Your task to perform on an android device: Search for Mexican restaurants on Maps Image 0: 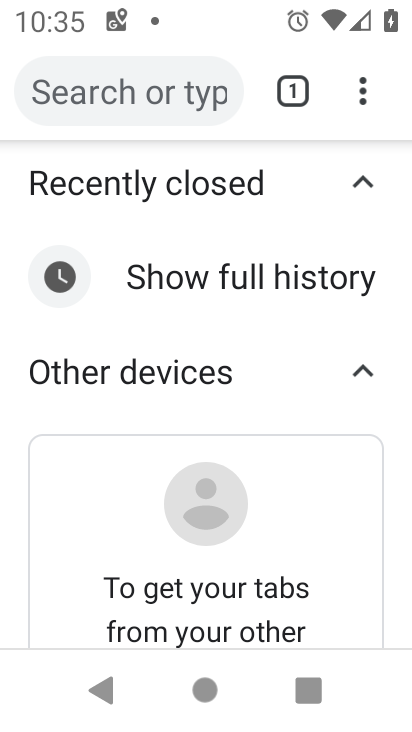
Step 0: drag from (264, 554) to (303, 99)
Your task to perform on an android device: Search for Mexican restaurants on Maps Image 1: 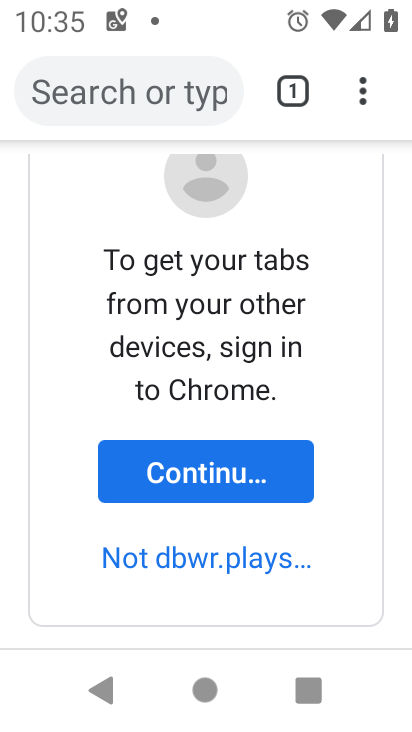
Step 1: drag from (271, 151) to (247, 679)
Your task to perform on an android device: Search for Mexican restaurants on Maps Image 2: 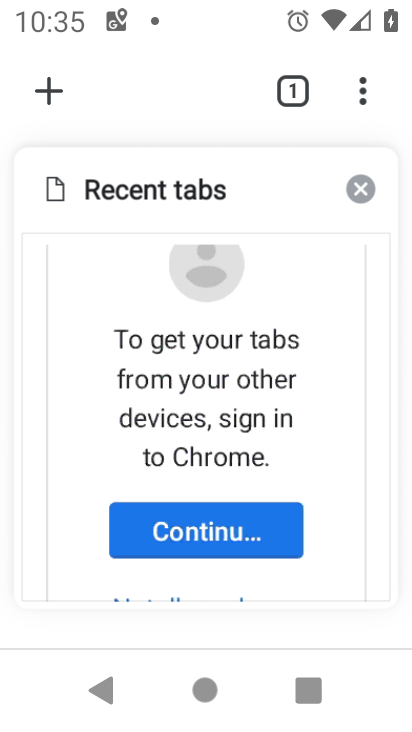
Step 2: click (213, 266)
Your task to perform on an android device: Search for Mexican restaurants on Maps Image 3: 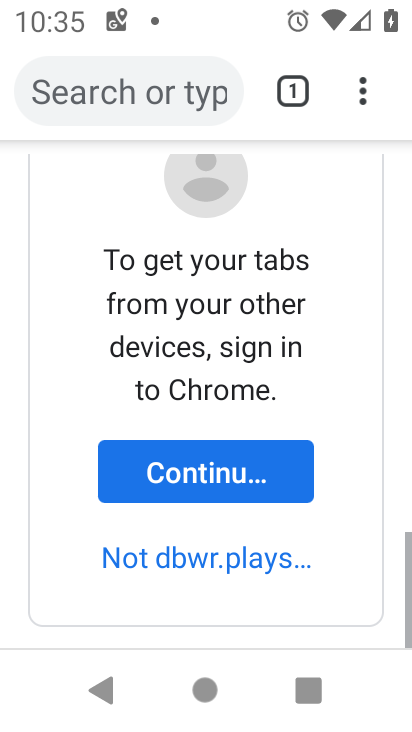
Step 3: click (110, 94)
Your task to perform on an android device: Search for Mexican restaurants on Maps Image 4: 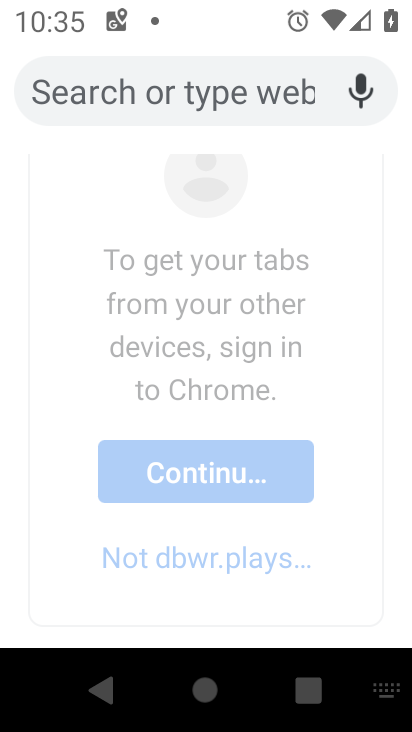
Step 4: press home button
Your task to perform on an android device: Search for Mexican restaurants on Maps Image 5: 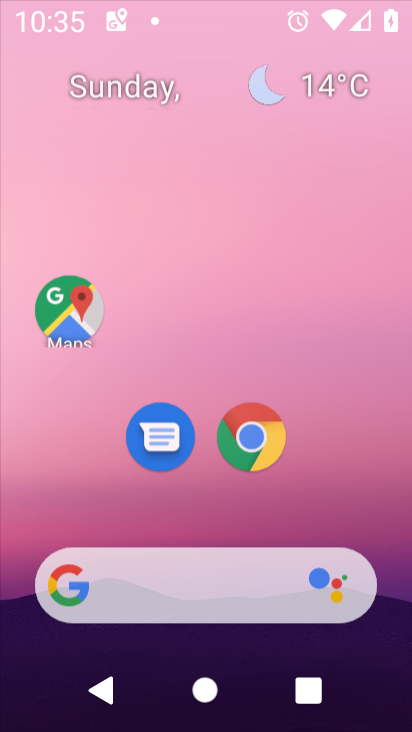
Step 5: drag from (217, 526) to (312, 17)
Your task to perform on an android device: Search for Mexican restaurants on Maps Image 6: 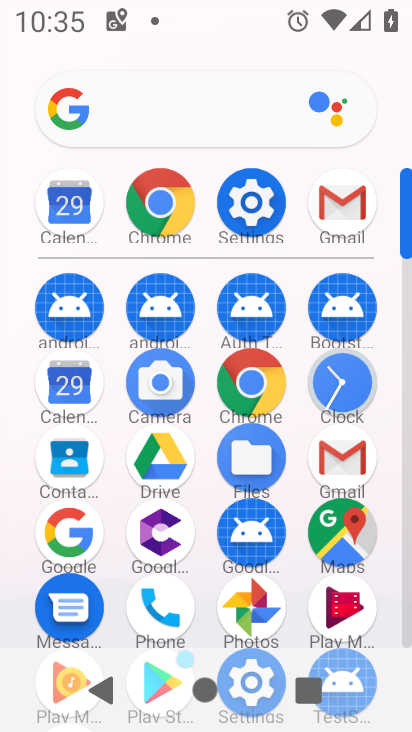
Step 6: click (335, 528)
Your task to perform on an android device: Search for Mexican restaurants on Maps Image 7: 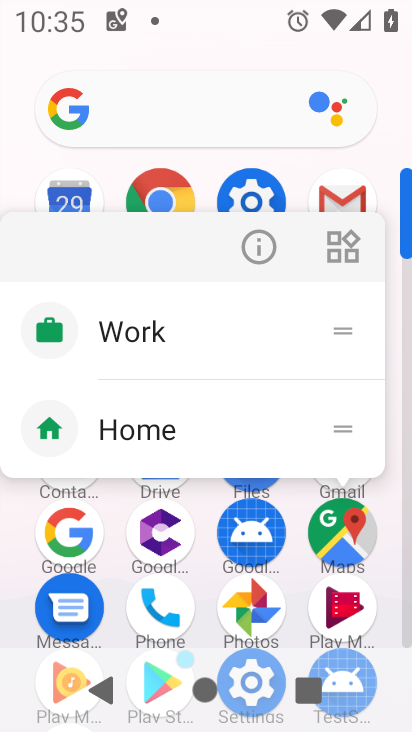
Step 7: click (258, 256)
Your task to perform on an android device: Search for Mexican restaurants on Maps Image 8: 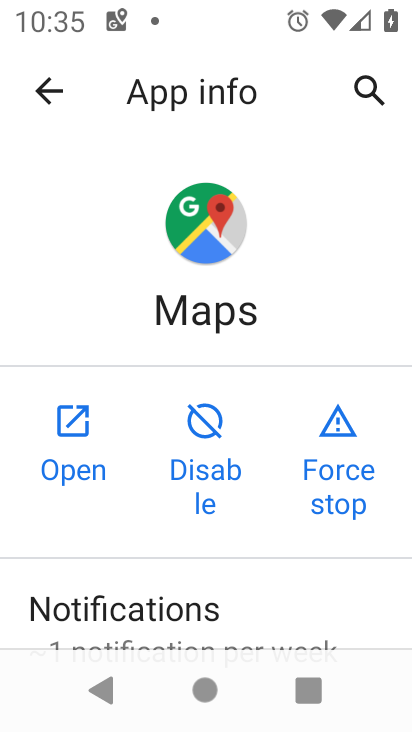
Step 8: click (73, 433)
Your task to perform on an android device: Search for Mexican restaurants on Maps Image 9: 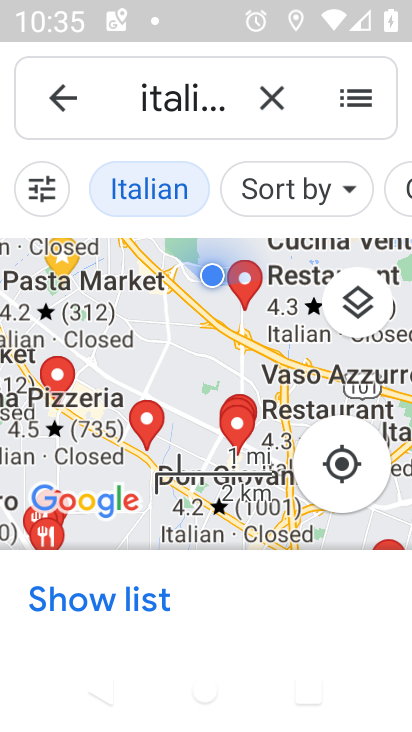
Step 9: click (274, 105)
Your task to perform on an android device: Search for Mexican restaurants on Maps Image 10: 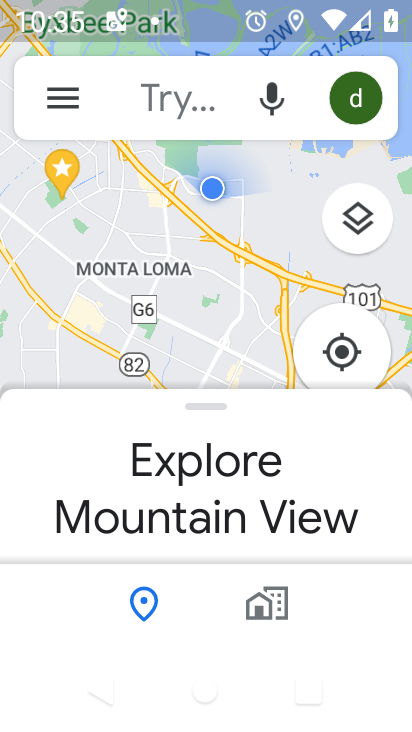
Step 10: click (153, 97)
Your task to perform on an android device: Search for Mexican restaurants on Maps Image 11: 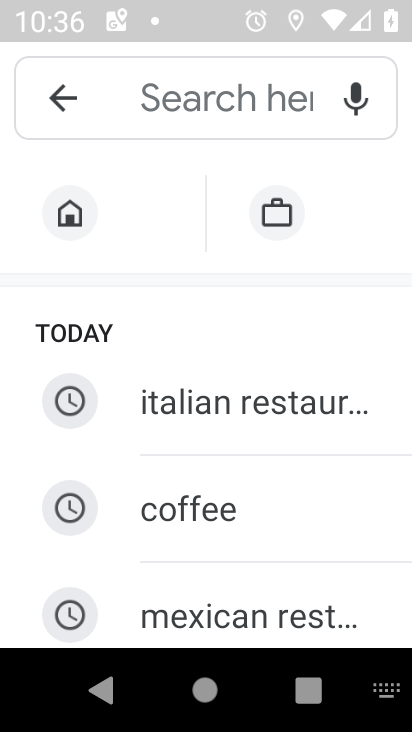
Step 11: drag from (254, 568) to (286, 301)
Your task to perform on an android device: Search for Mexican restaurants on Maps Image 12: 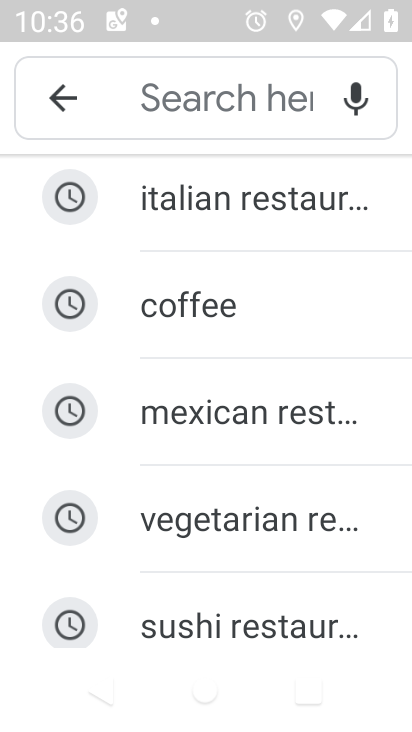
Step 12: click (206, 431)
Your task to perform on an android device: Search for Mexican restaurants on Maps Image 13: 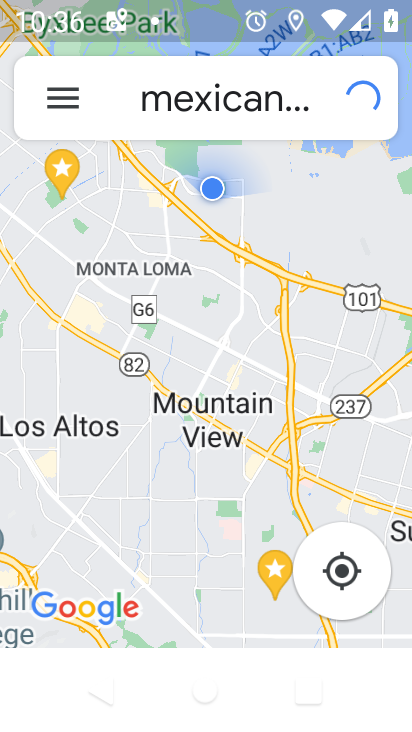
Step 13: task complete